Your task to perform on an android device: Open settings Image 0: 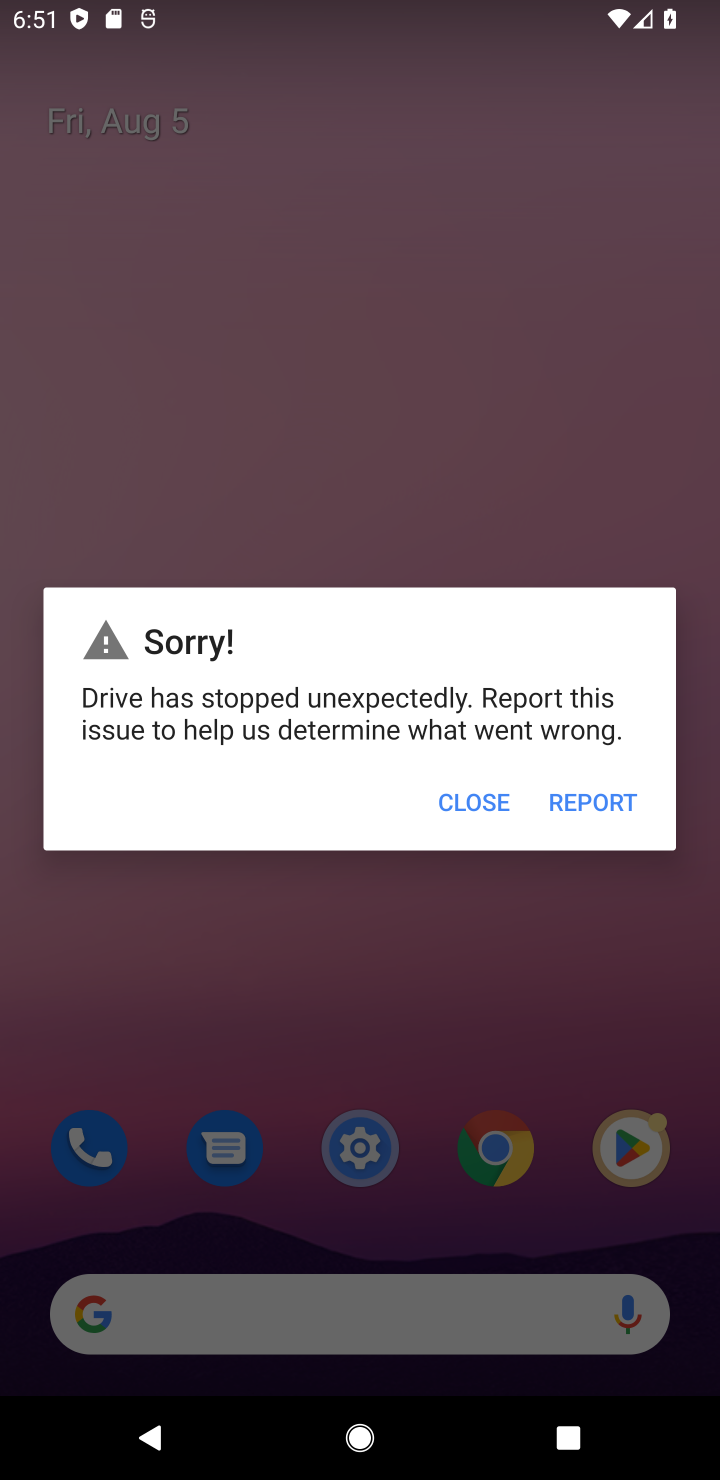
Step 0: click (472, 822)
Your task to perform on an android device: Open settings Image 1: 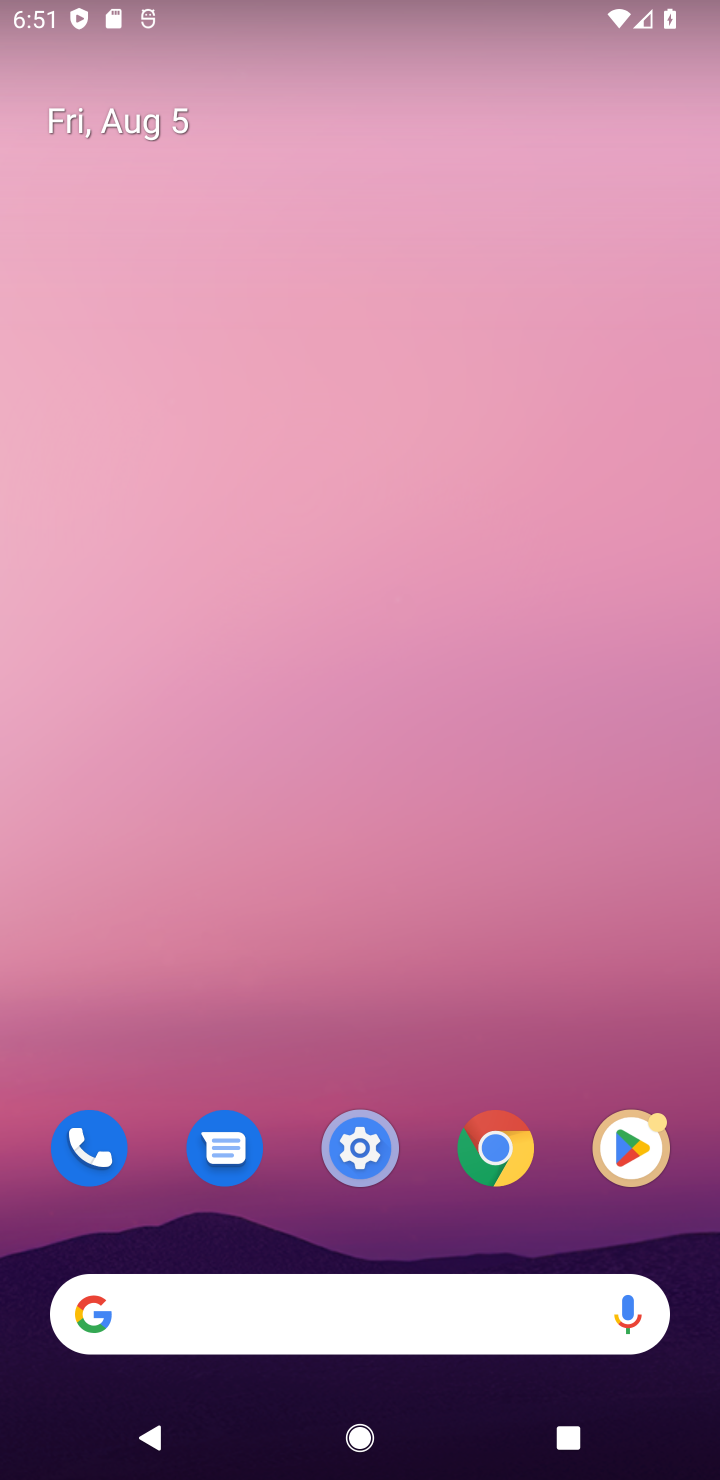
Step 1: click (344, 1186)
Your task to perform on an android device: Open settings Image 2: 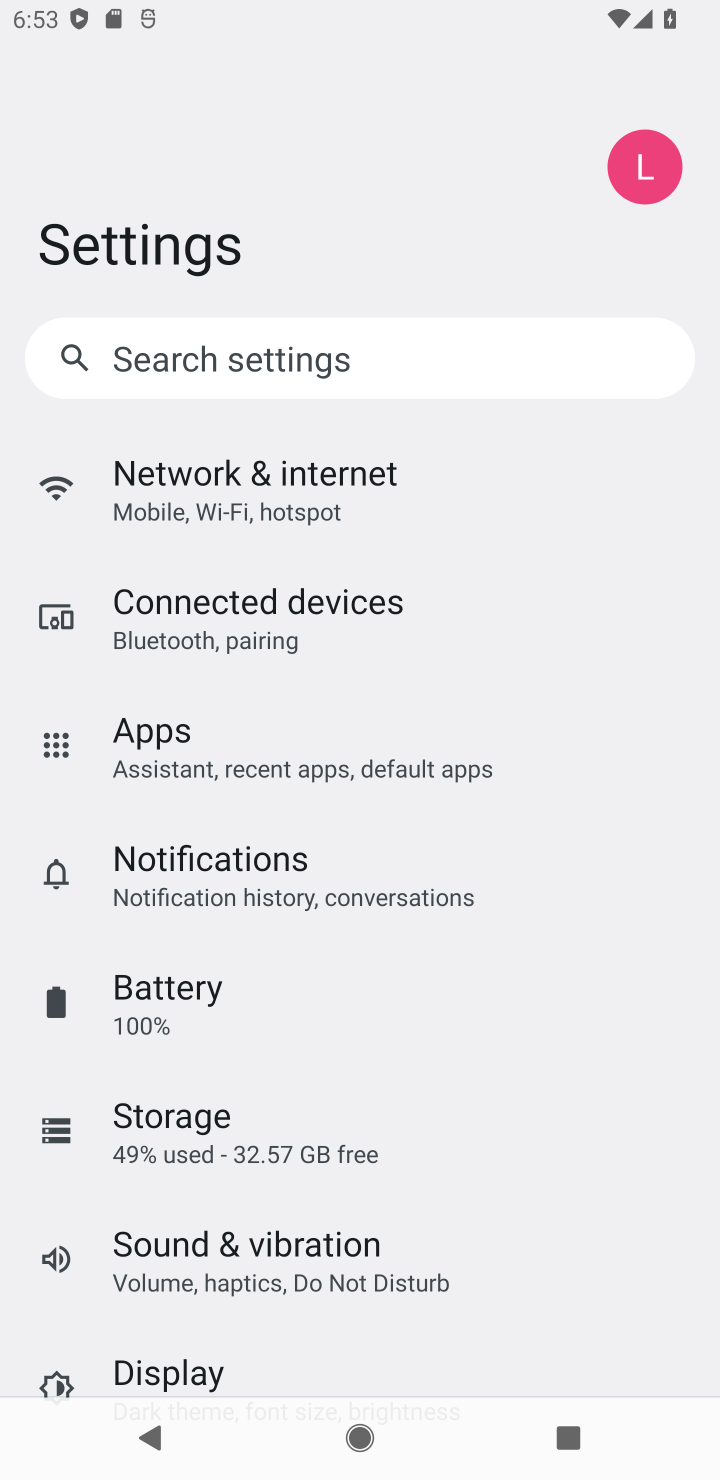
Step 2: task complete